Your task to perform on an android device: turn off location Image 0: 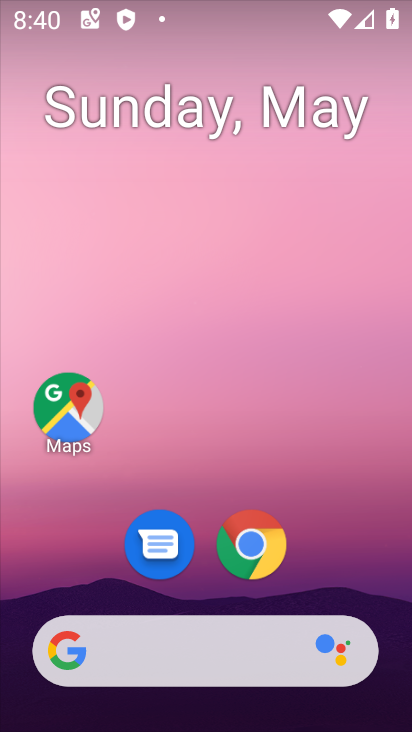
Step 0: drag from (326, 400) to (235, 6)
Your task to perform on an android device: turn off location Image 1: 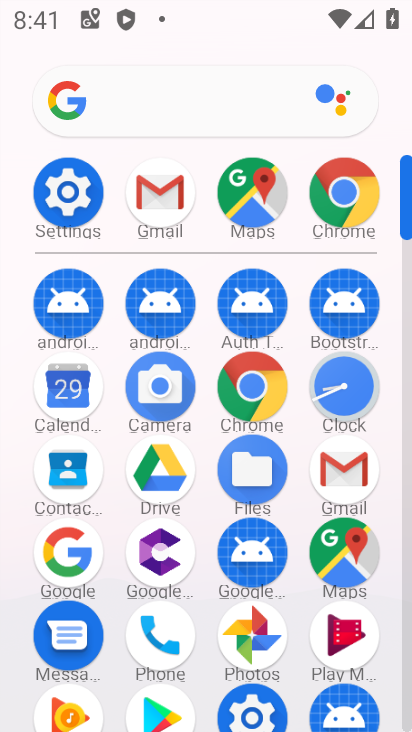
Step 1: click (47, 179)
Your task to perform on an android device: turn off location Image 2: 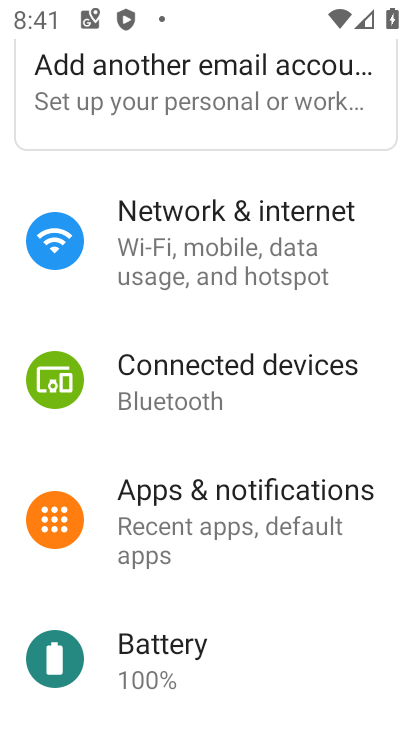
Step 2: drag from (287, 586) to (273, 174)
Your task to perform on an android device: turn off location Image 3: 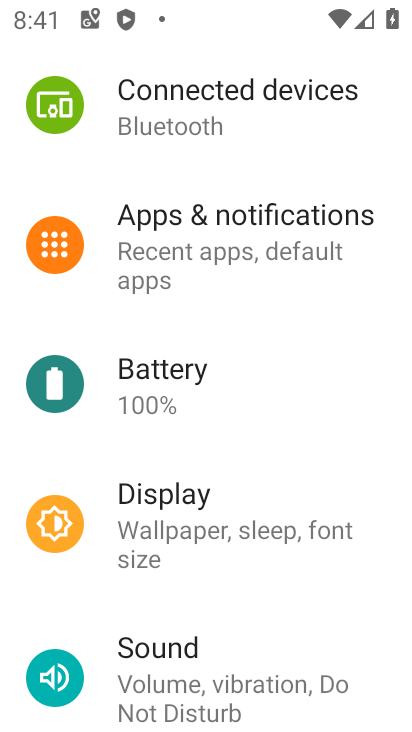
Step 3: drag from (265, 581) to (245, 212)
Your task to perform on an android device: turn off location Image 4: 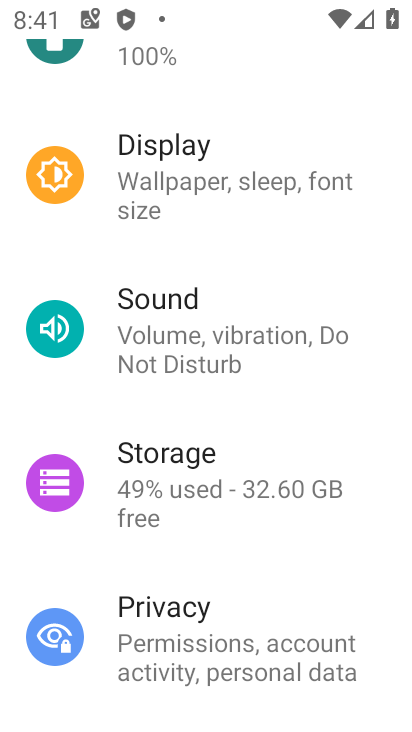
Step 4: drag from (246, 609) to (257, 147)
Your task to perform on an android device: turn off location Image 5: 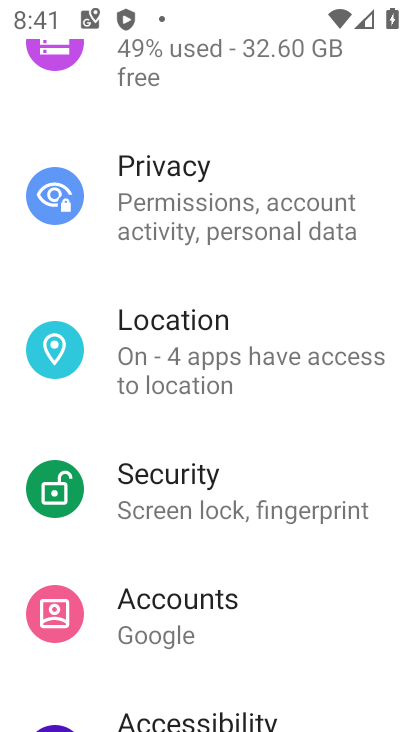
Step 5: click (196, 352)
Your task to perform on an android device: turn off location Image 6: 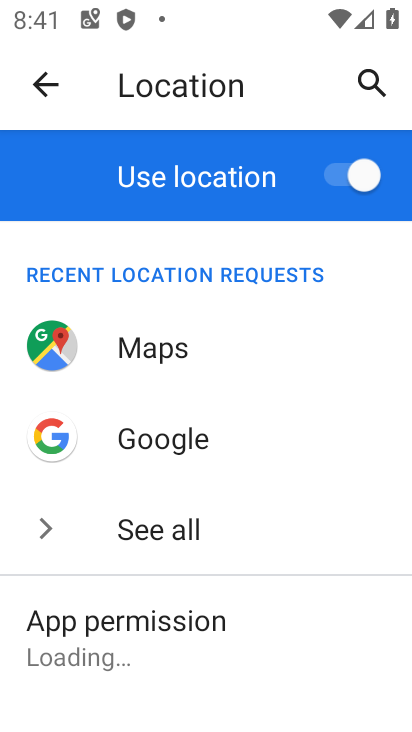
Step 6: click (330, 179)
Your task to perform on an android device: turn off location Image 7: 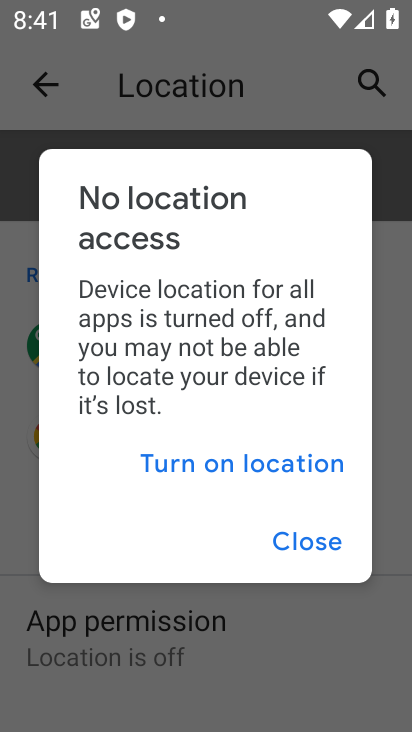
Step 7: task complete